Your task to perform on an android device: Go to Yahoo.com Image 0: 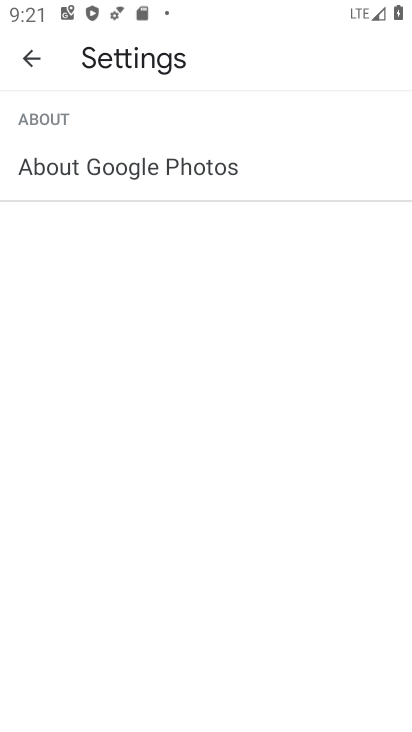
Step 0: press home button
Your task to perform on an android device: Go to Yahoo.com Image 1: 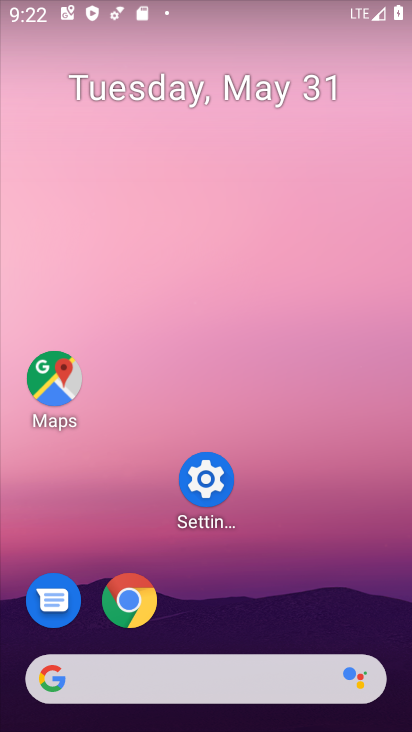
Step 1: click (109, 608)
Your task to perform on an android device: Go to Yahoo.com Image 2: 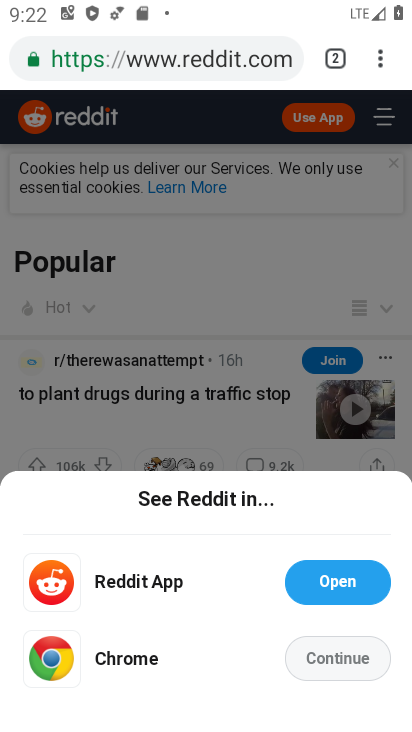
Step 2: click (323, 64)
Your task to perform on an android device: Go to Yahoo.com Image 3: 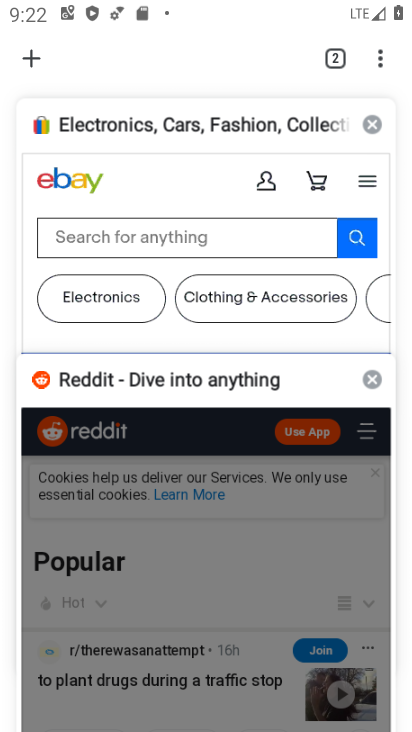
Step 3: click (41, 63)
Your task to perform on an android device: Go to Yahoo.com Image 4: 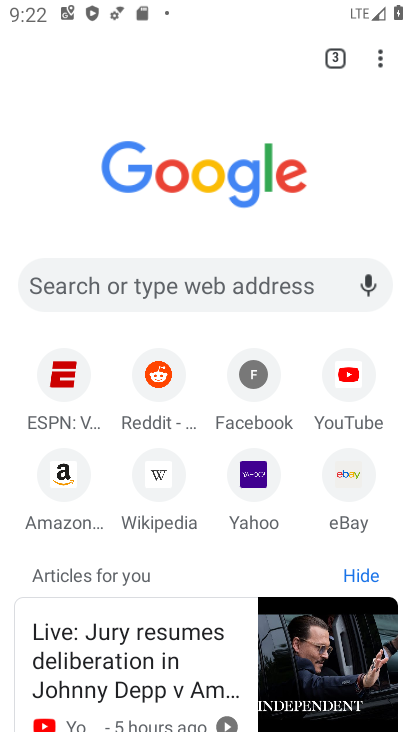
Step 4: click (251, 476)
Your task to perform on an android device: Go to Yahoo.com Image 5: 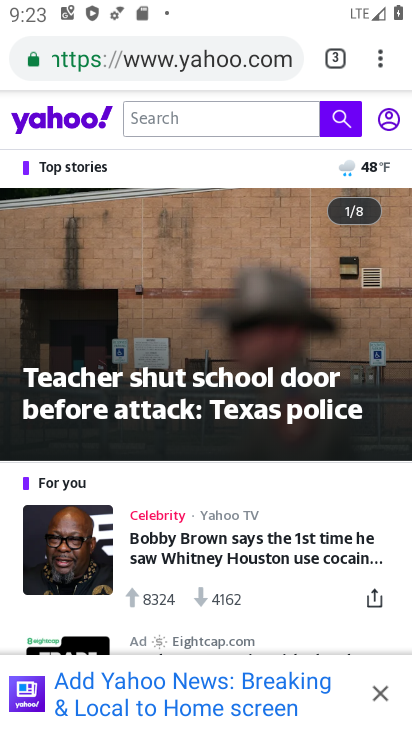
Step 5: task complete